Your task to perform on an android device: Go to Android settings Image 0: 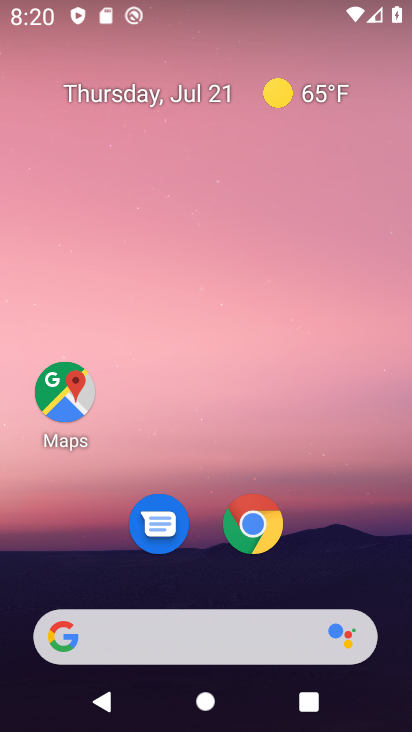
Step 0: drag from (259, 641) to (363, 156)
Your task to perform on an android device: Go to Android settings Image 1: 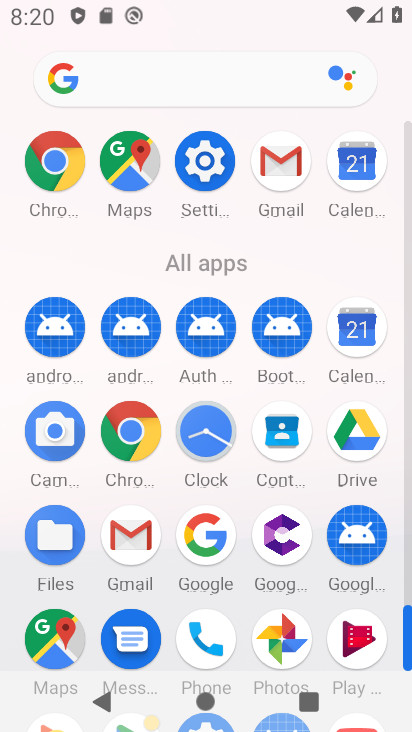
Step 1: click (186, 166)
Your task to perform on an android device: Go to Android settings Image 2: 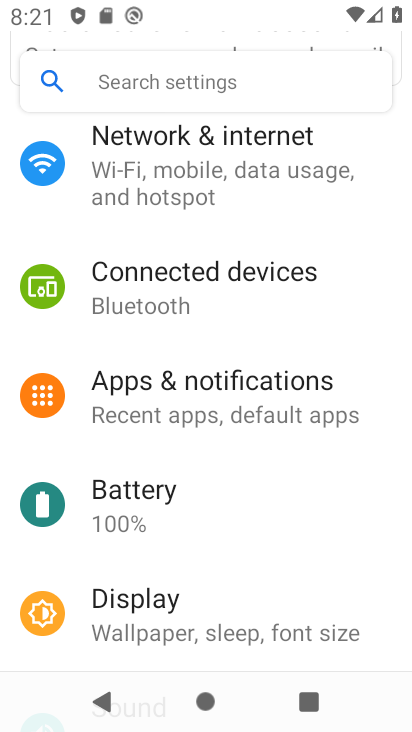
Step 2: task complete